Your task to perform on an android device: change alarm snooze length Image 0: 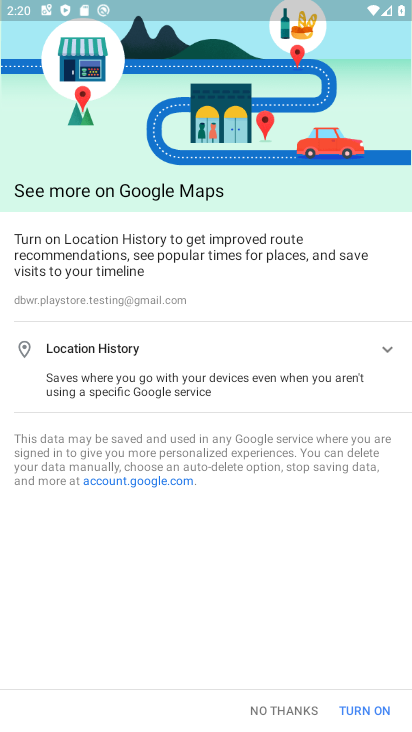
Step 0: click (294, 705)
Your task to perform on an android device: change alarm snooze length Image 1: 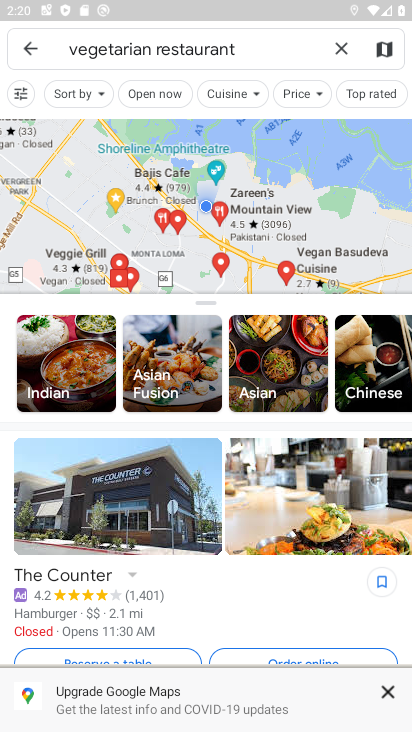
Step 1: press back button
Your task to perform on an android device: change alarm snooze length Image 2: 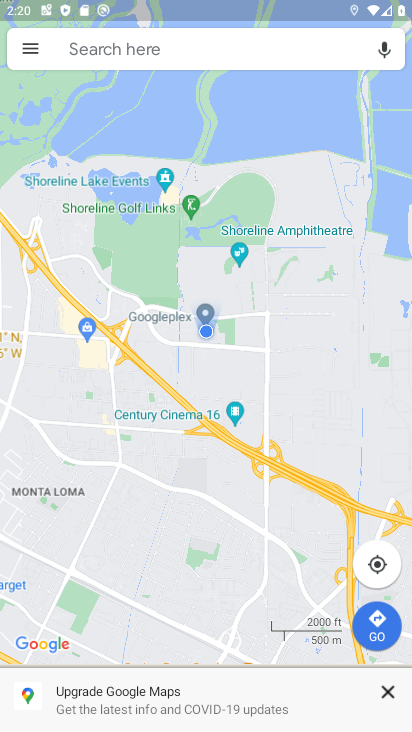
Step 2: press back button
Your task to perform on an android device: change alarm snooze length Image 3: 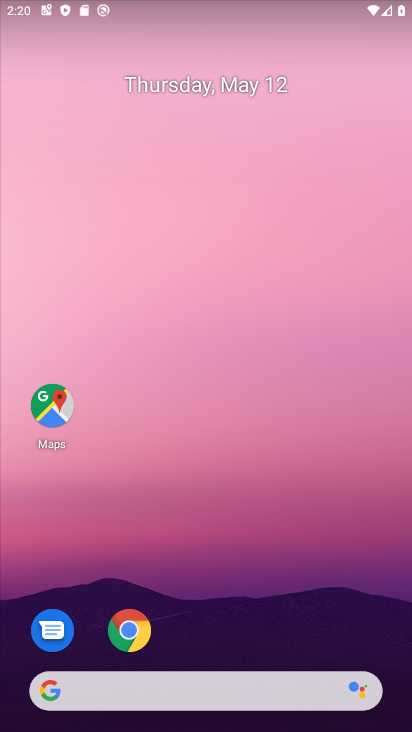
Step 3: drag from (244, 611) to (252, 145)
Your task to perform on an android device: change alarm snooze length Image 4: 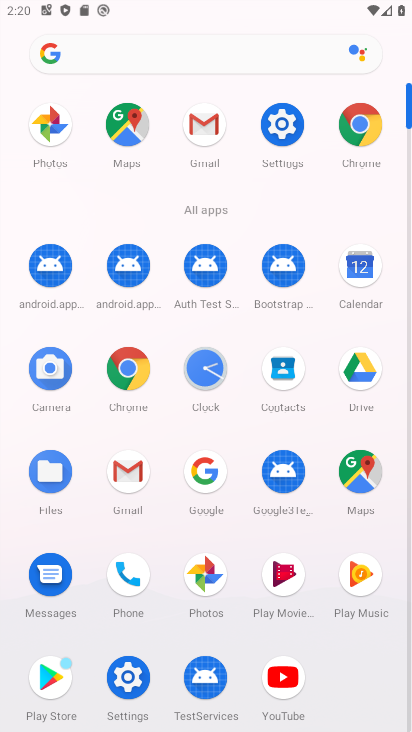
Step 4: click (203, 367)
Your task to perform on an android device: change alarm snooze length Image 5: 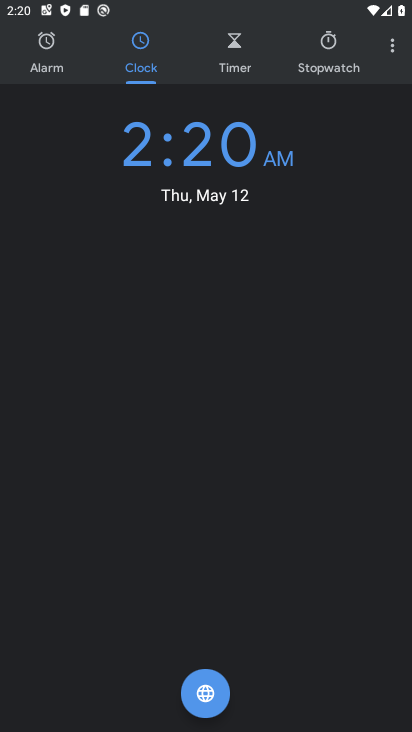
Step 5: click (392, 46)
Your task to perform on an android device: change alarm snooze length Image 6: 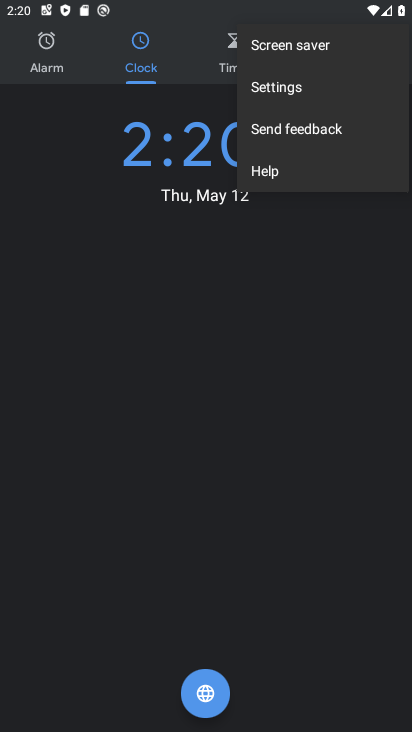
Step 6: click (267, 88)
Your task to perform on an android device: change alarm snooze length Image 7: 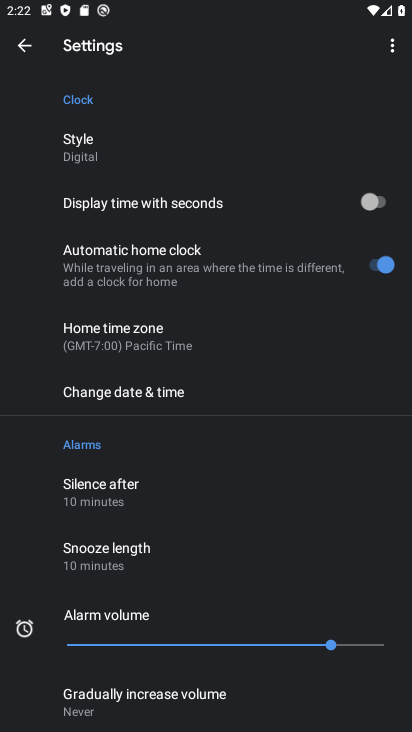
Step 7: click (113, 548)
Your task to perform on an android device: change alarm snooze length Image 8: 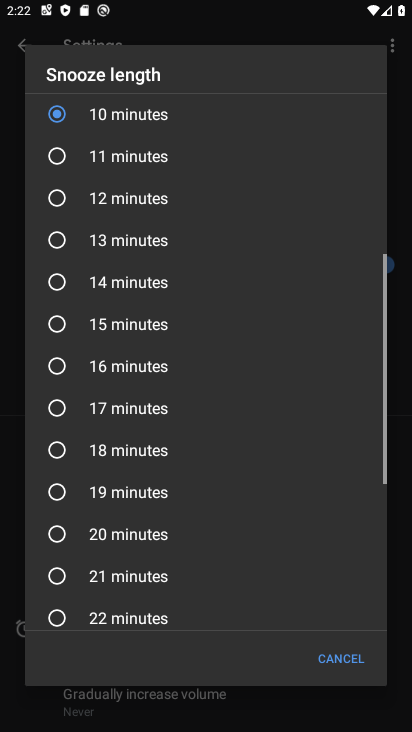
Step 8: drag from (136, 555) to (157, 296)
Your task to perform on an android device: change alarm snooze length Image 9: 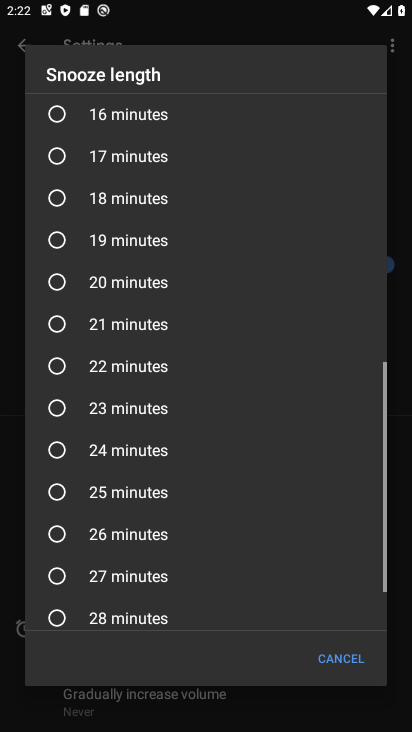
Step 9: click (118, 374)
Your task to perform on an android device: change alarm snooze length Image 10: 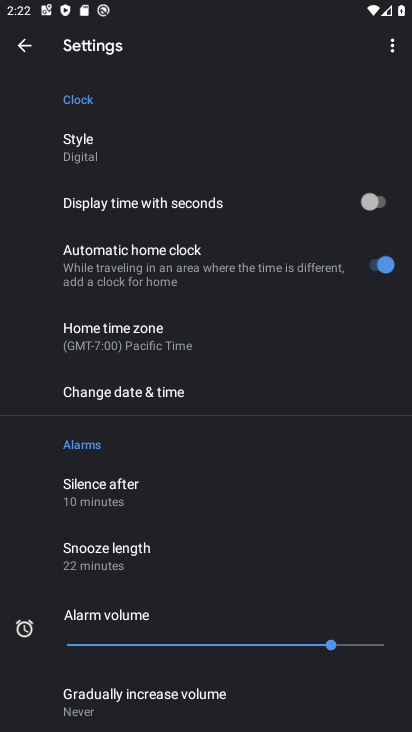
Step 10: task complete